Your task to perform on an android device: Open the calendar app, open the side menu, and click the "Day" option Image 0: 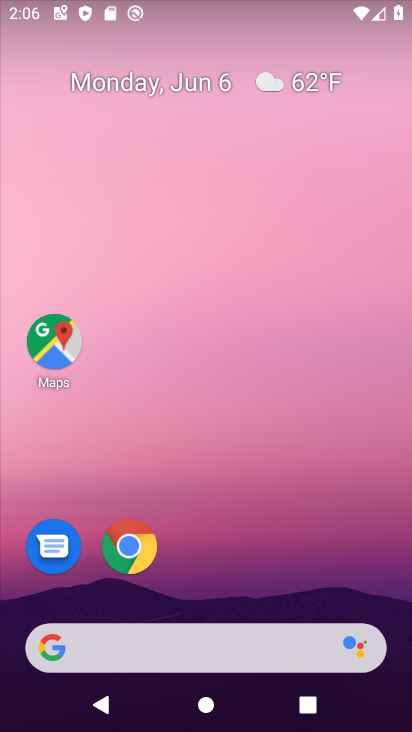
Step 0: drag from (245, 527) to (211, 27)
Your task to perform on an android device: Open the calendar app, open the side menu, and click the "Day" option Image 1: 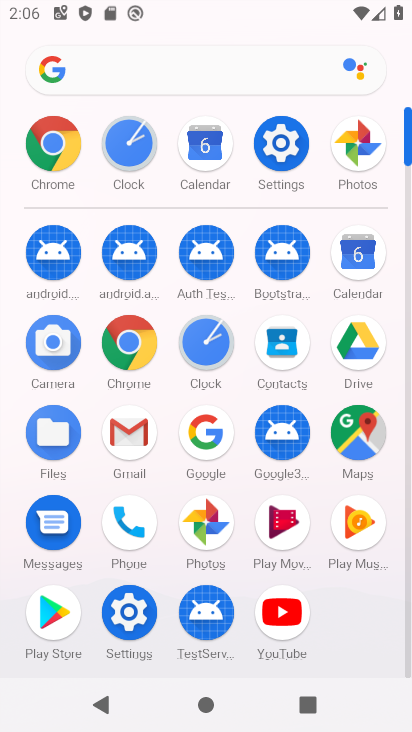
Step 1: click (362, 255)
Your task to perform on an android device: Open the calendar app, open the side menu, and click the "Day" option Image 2: 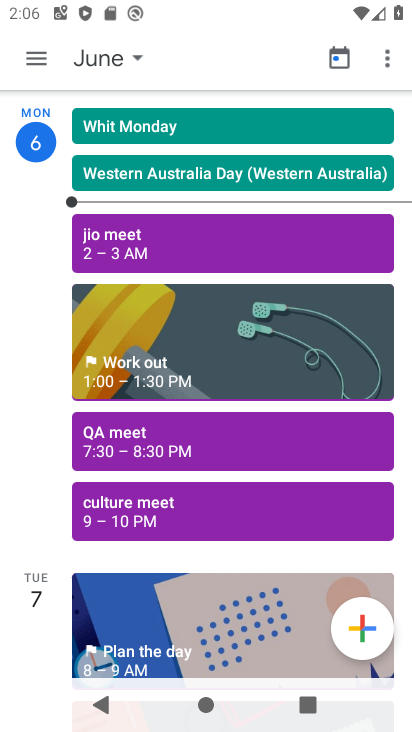
Step 2: click (38, 56)
Your task to perform on an android device: Open the calendar app, open the side menu, and click the "Day" option Image 3: 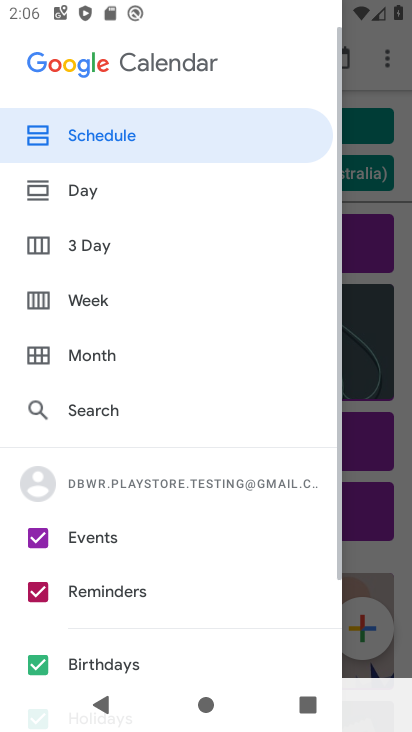
Step 3: click (96, 200)
Your task to perform on an android device: Open the calendar app, open the side menu, and click the "Day" option Image 4: 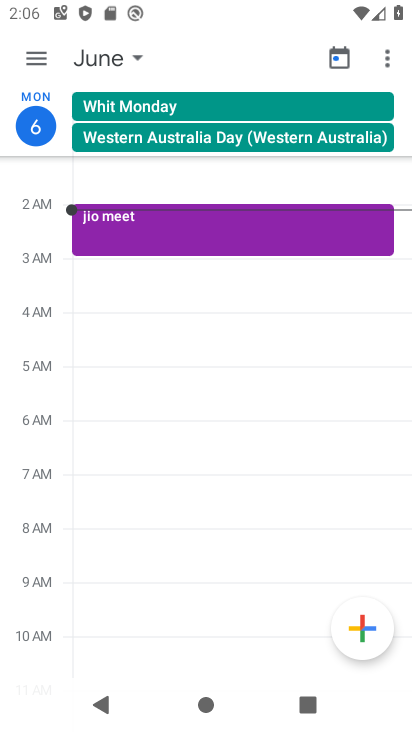
Step 4: task complete